Your task to perform on an android device: open wifi settings Image 0: 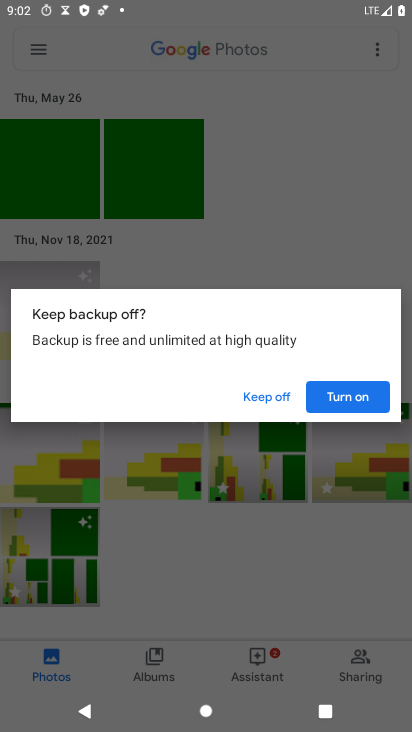
Step 0: press back button
Your task to perform on an android device: open wifi settings Image 1: 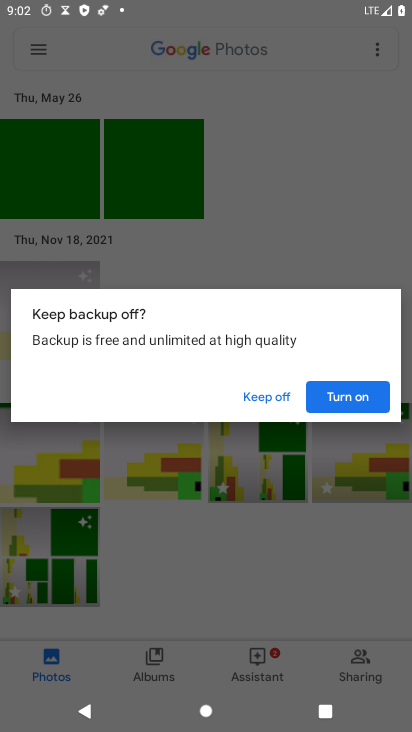
Step 1: press home button
Your task to perform on an android device: open wifi settings Image 2: 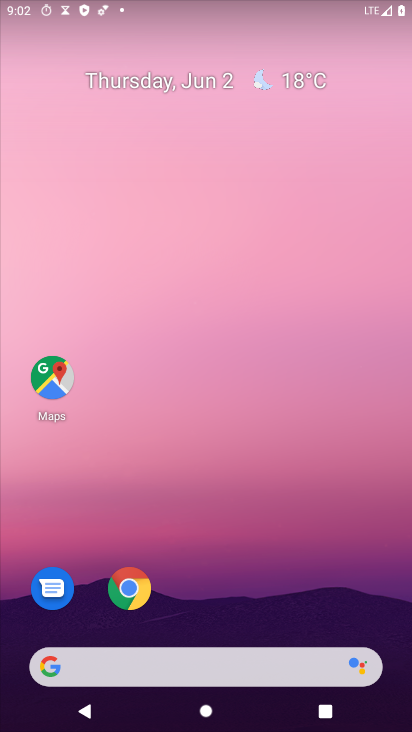
Step 2: drag from (117, 6) to (187, 475)
Your task to perform on an android device: open wifi settings Image 3: 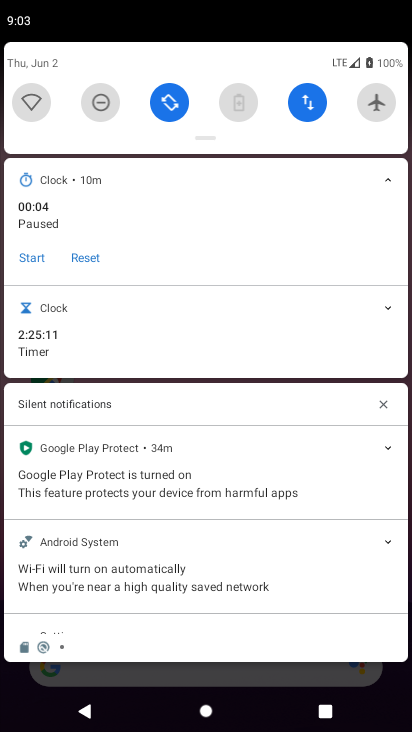
Step 3: click (34, 102)
Your task to perform on an android device: open wifi settings Image 4: 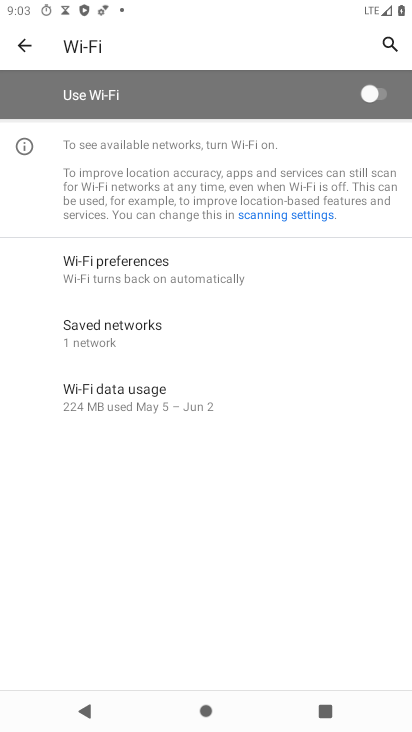
Step 4: task complete